Your task to perform on an android device: turn pop-ups off in chrome Image 0: 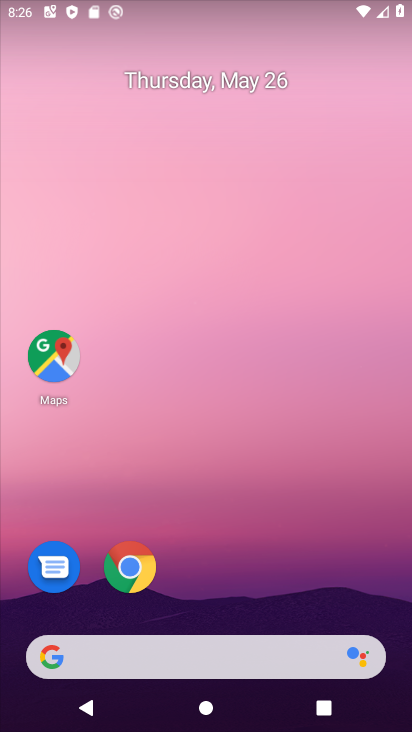
Step 0: click (126, 564)
Your task to perform on an android device: turn pop-ups off in chrome Image 1: 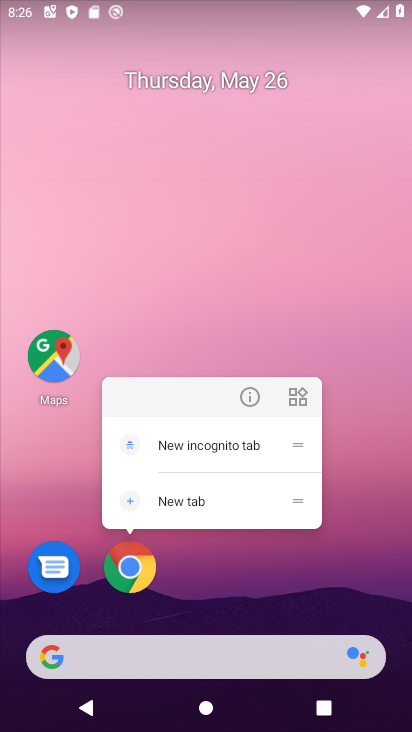
Step 1: click (134, 567)
Your task to perform on an android device: turn pop-ups off in chrome Image 2: 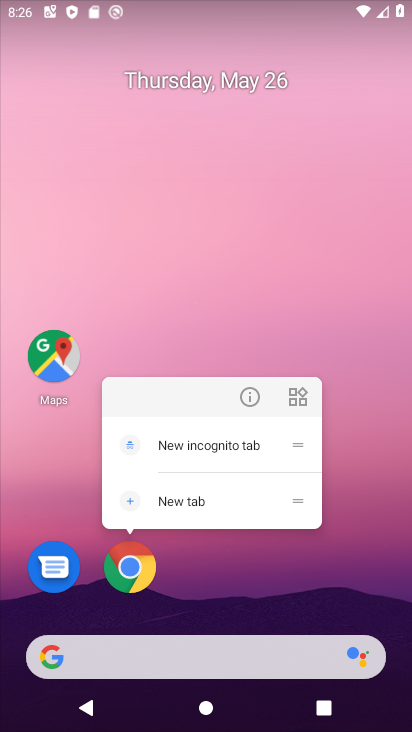
Step 2: click (128, 573)
Your task to perform on an android device: turn pop-ups off in chrome Image 3: 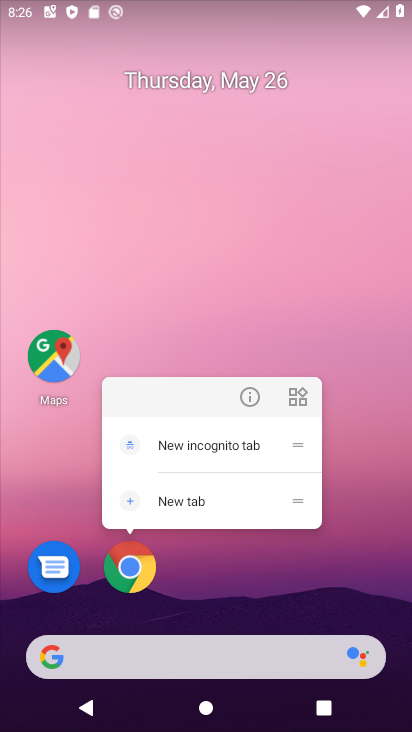
Step 3: click (124, 572)
Your task to perform on an android device: turn pop-ups off in chrome Image 4: 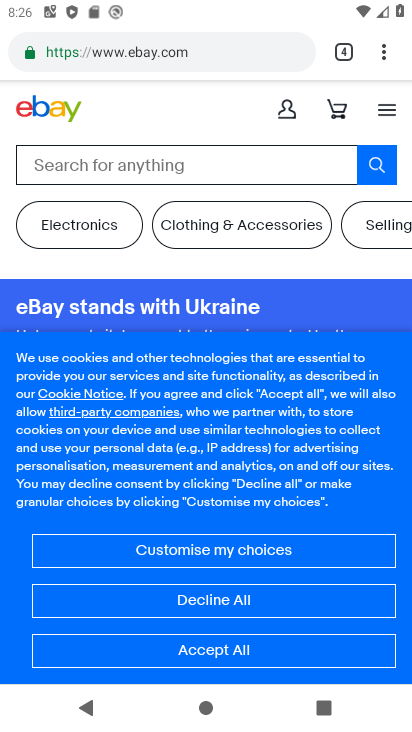
Step 4: drag from (382, 51) to (231, 605)
Your task to perform on an android device: turn pop-ups off in chrome Image 5: 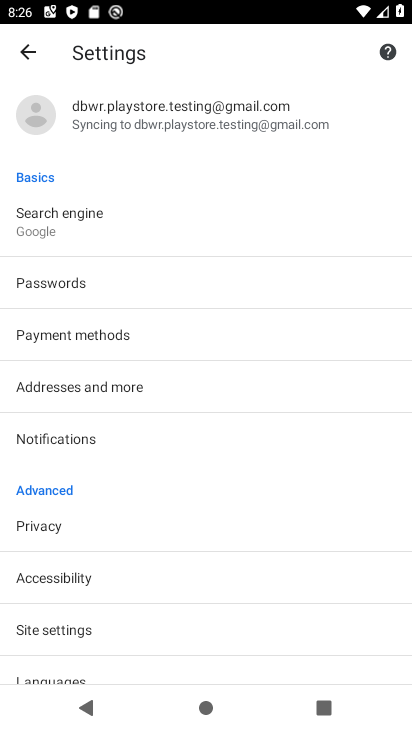
Step 5: drag from (168, 615) to (218, 393)
Your task to perform on an android device: turn pop-ups off in chrome Image 6: 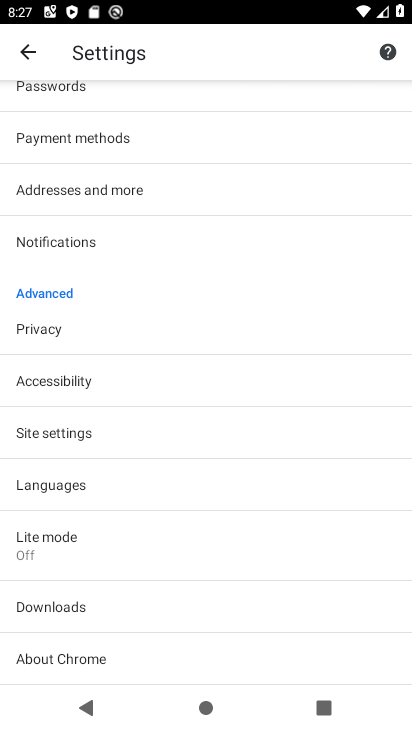
Step 6: click (64, 432)
Your task to perform on an android device: turn pop-ups off in chrome Image 7: 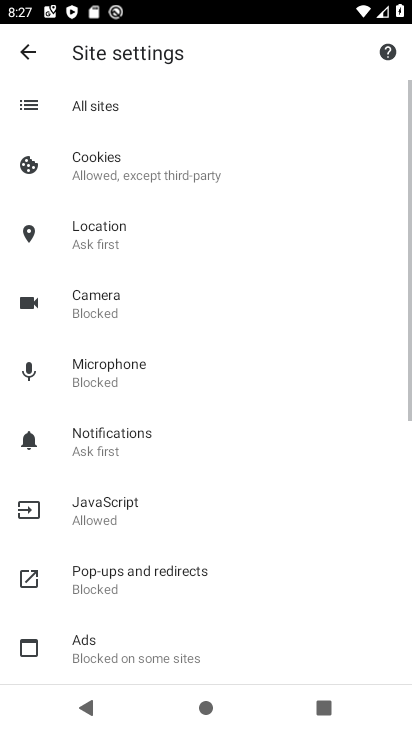
Step 7: click (137, 581)
Your task to perform on an android device: turn pop-ups off in chrome Image 8: 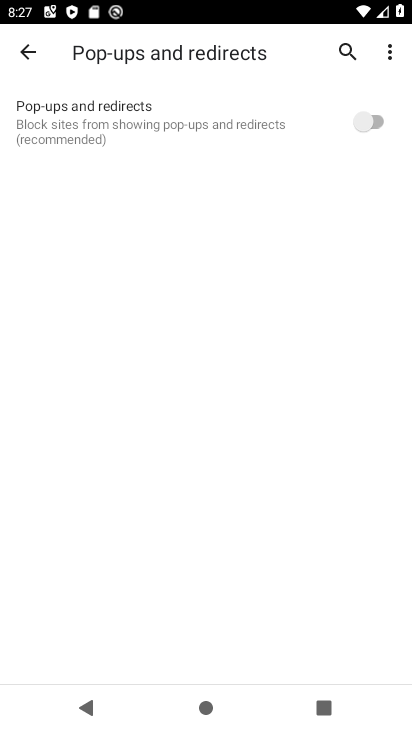
Step 8: task complete